Your task to perform on an android device: Go to Maps Image 0: 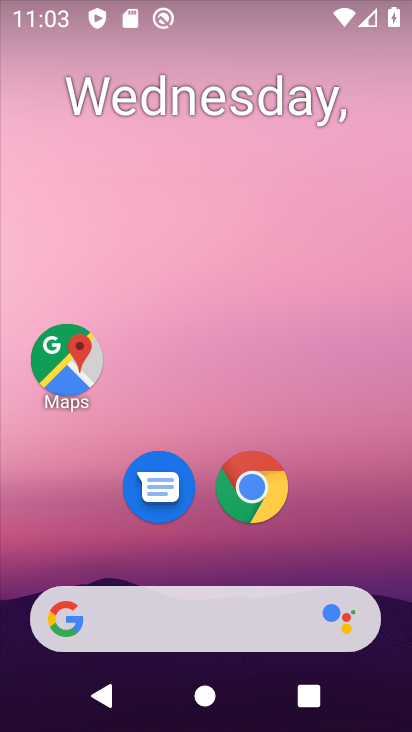
Step 0: click (67, 360)
Your task to perform on an android device: Go to Maps Image 1: 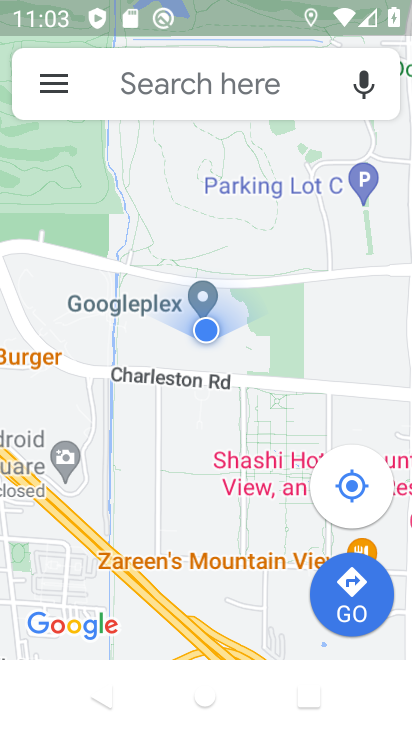
Step 1: task complete